Your task to perform on an android device: What is the news today? Image 0: 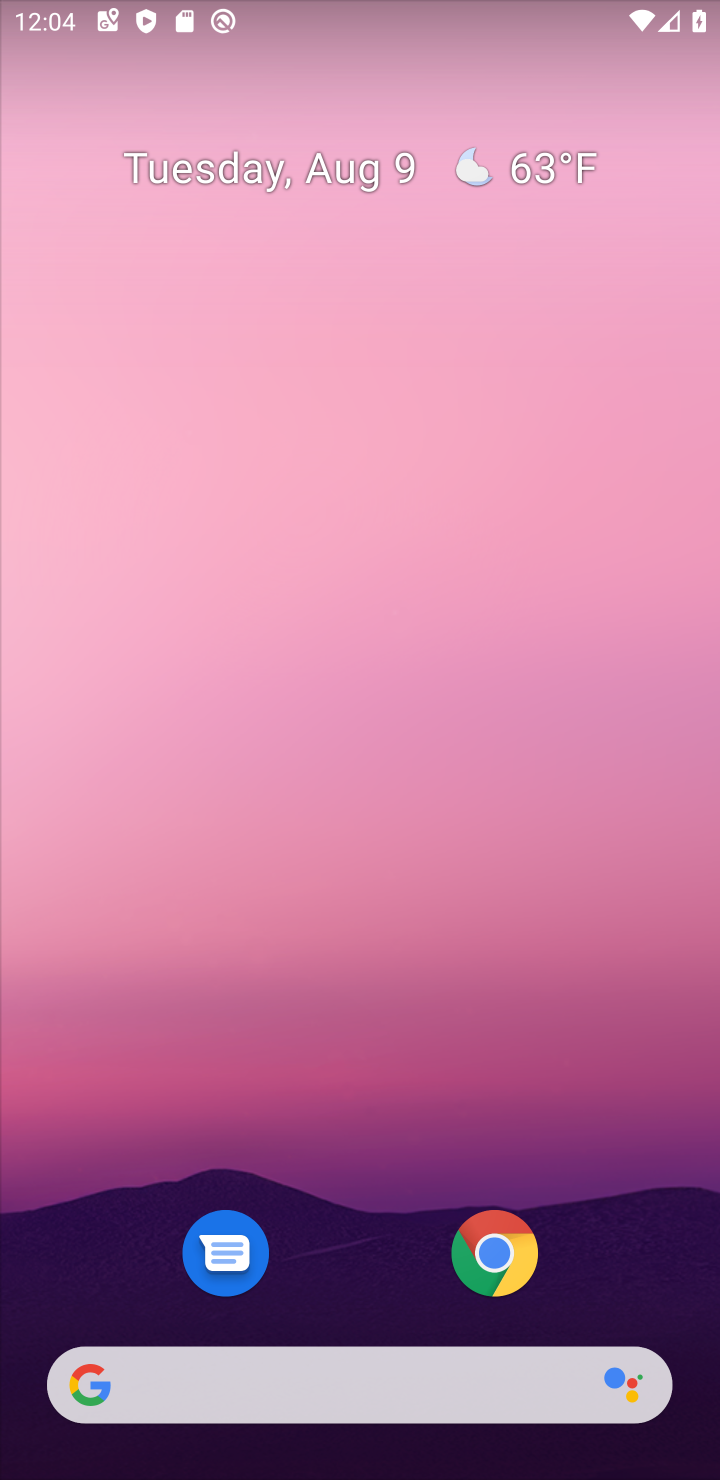
Step 0: drag from (629, 1246) to (240, 65)
Your task to perform on an android device: What is the news today? Image 1: 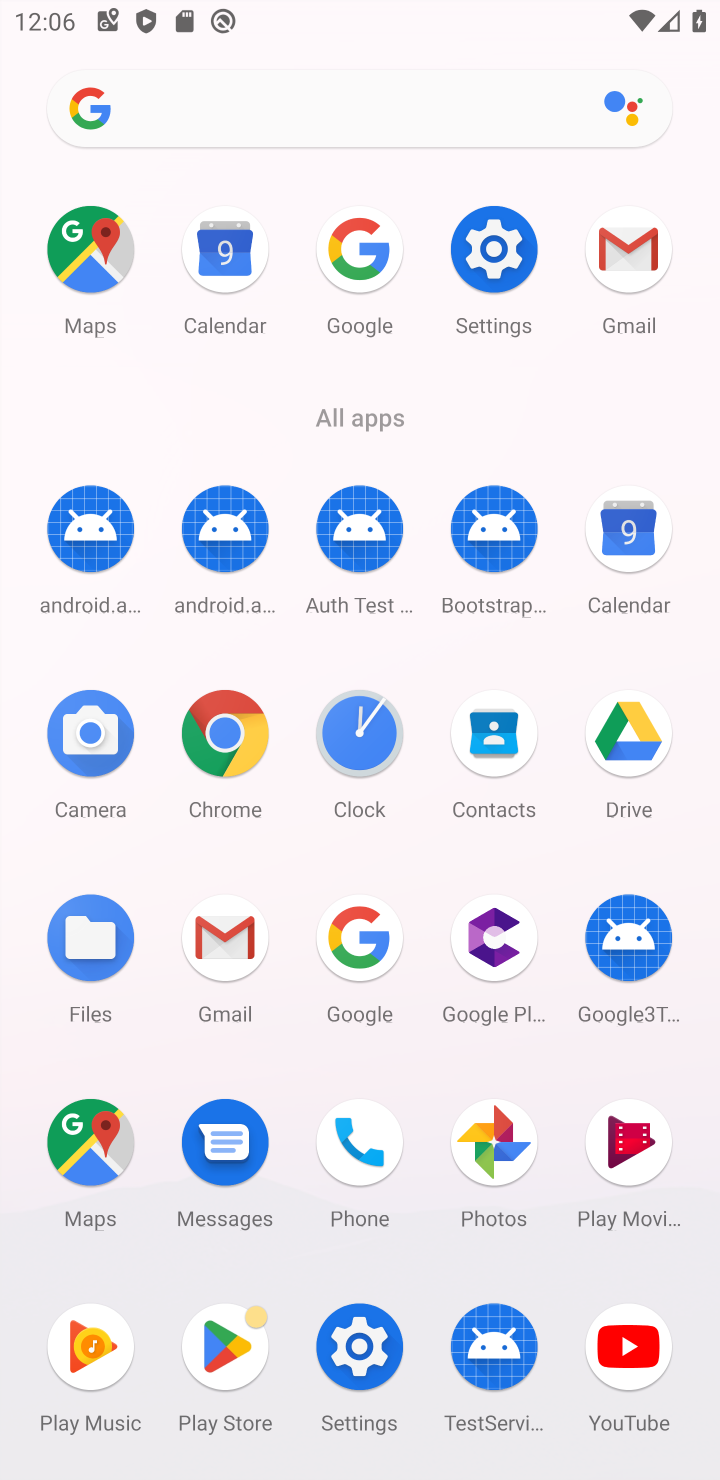
Step 1: click (371, 942)
Your task to perform on an android device: What is the news today? Image 2: 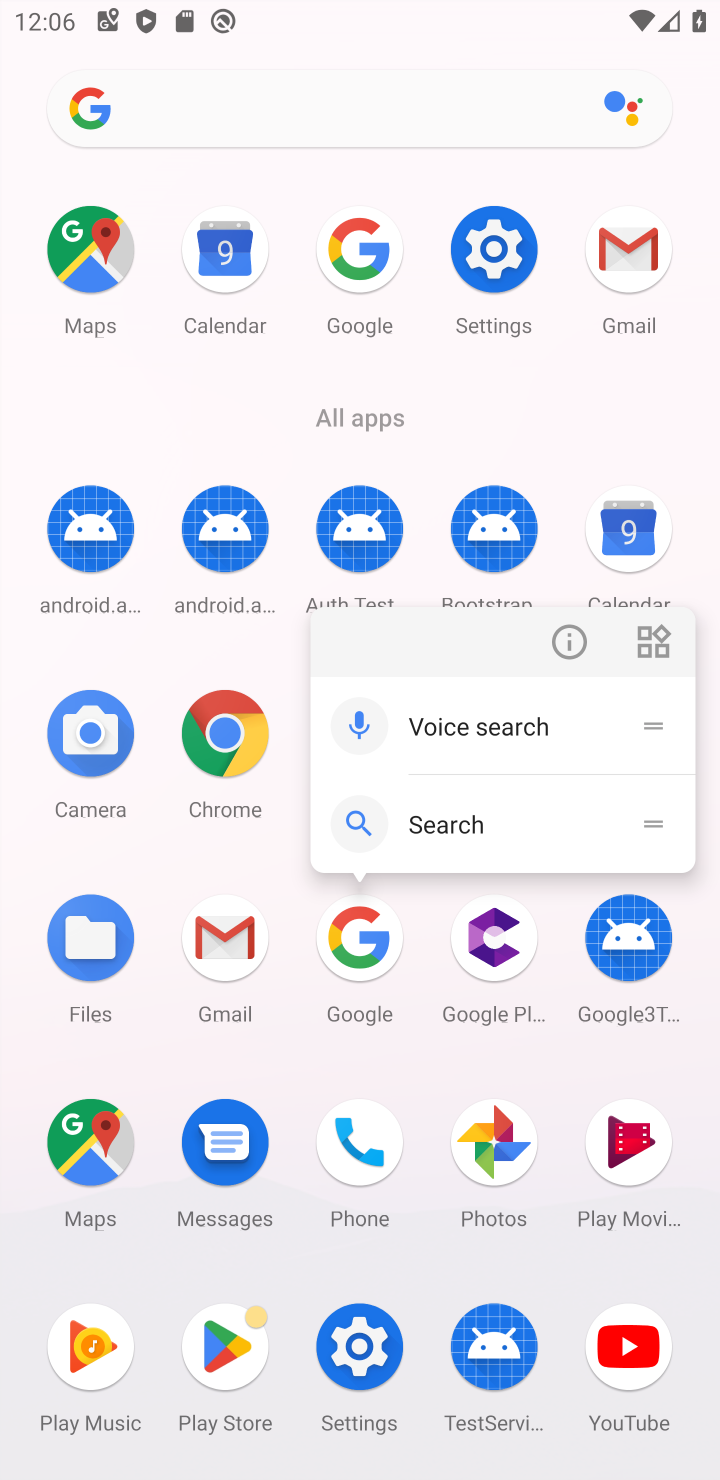
Step 2: click (371, 942)
Your task to perform on an android device: What is the news today? Image 3: 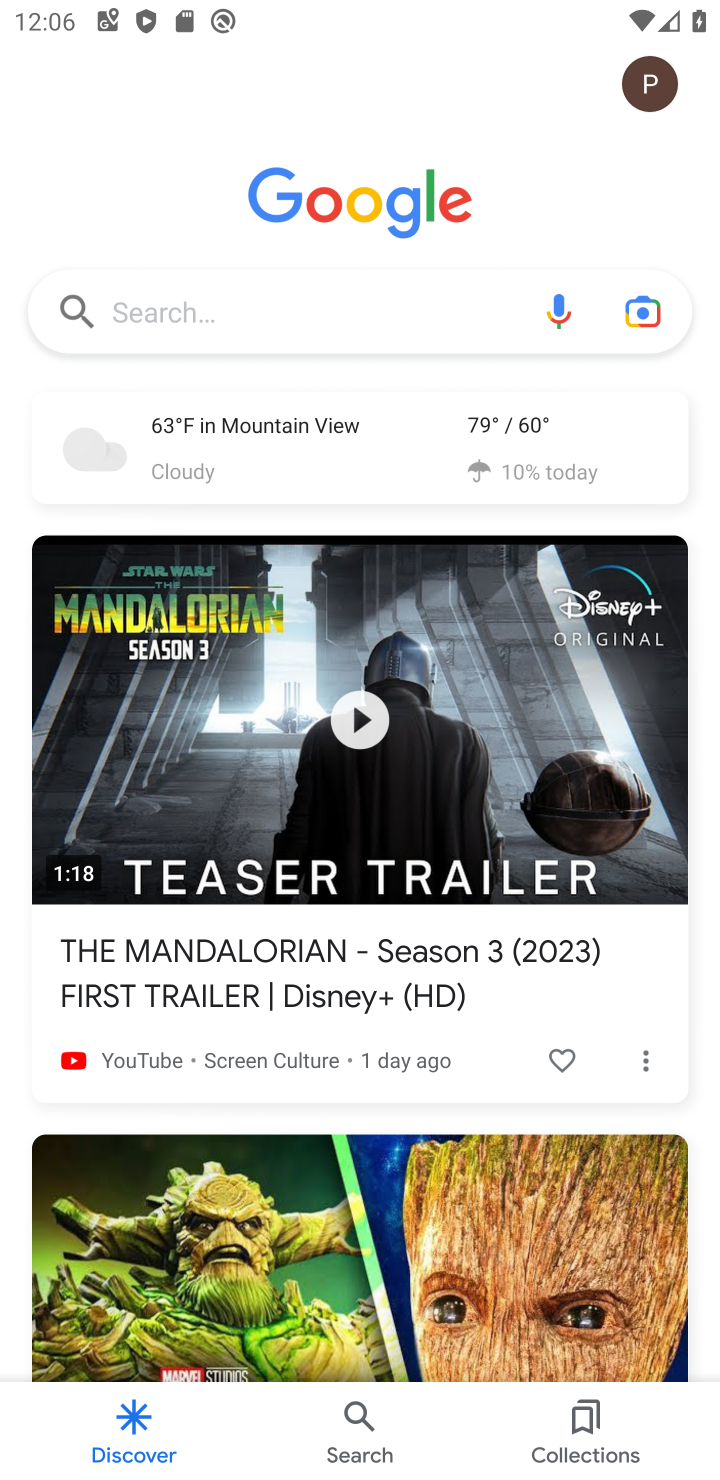
Step 3: click (267, 298)
Your task to perform on an android device: What is the news today? Image 4: 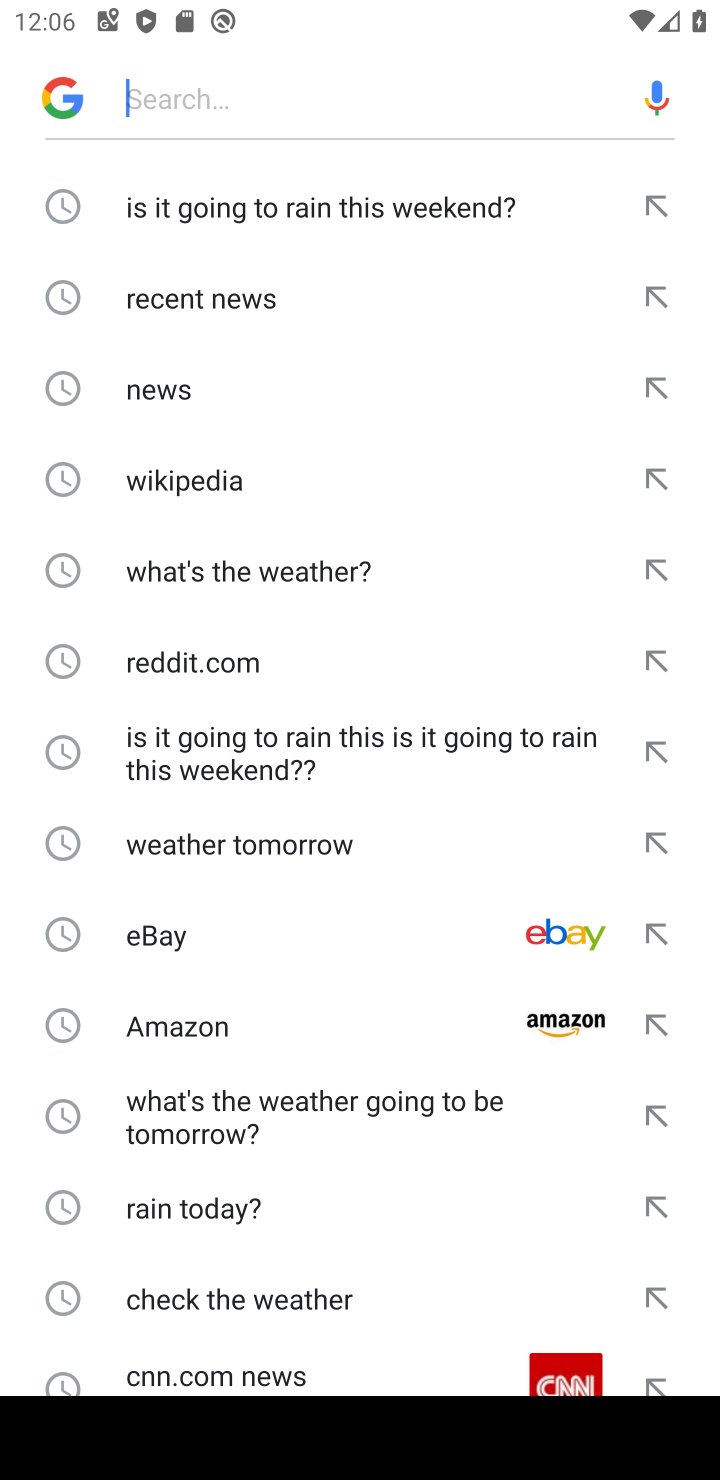
Step 4: type "What is the news today?"
Your task to perform on an android device: What is the news today? Image 5: 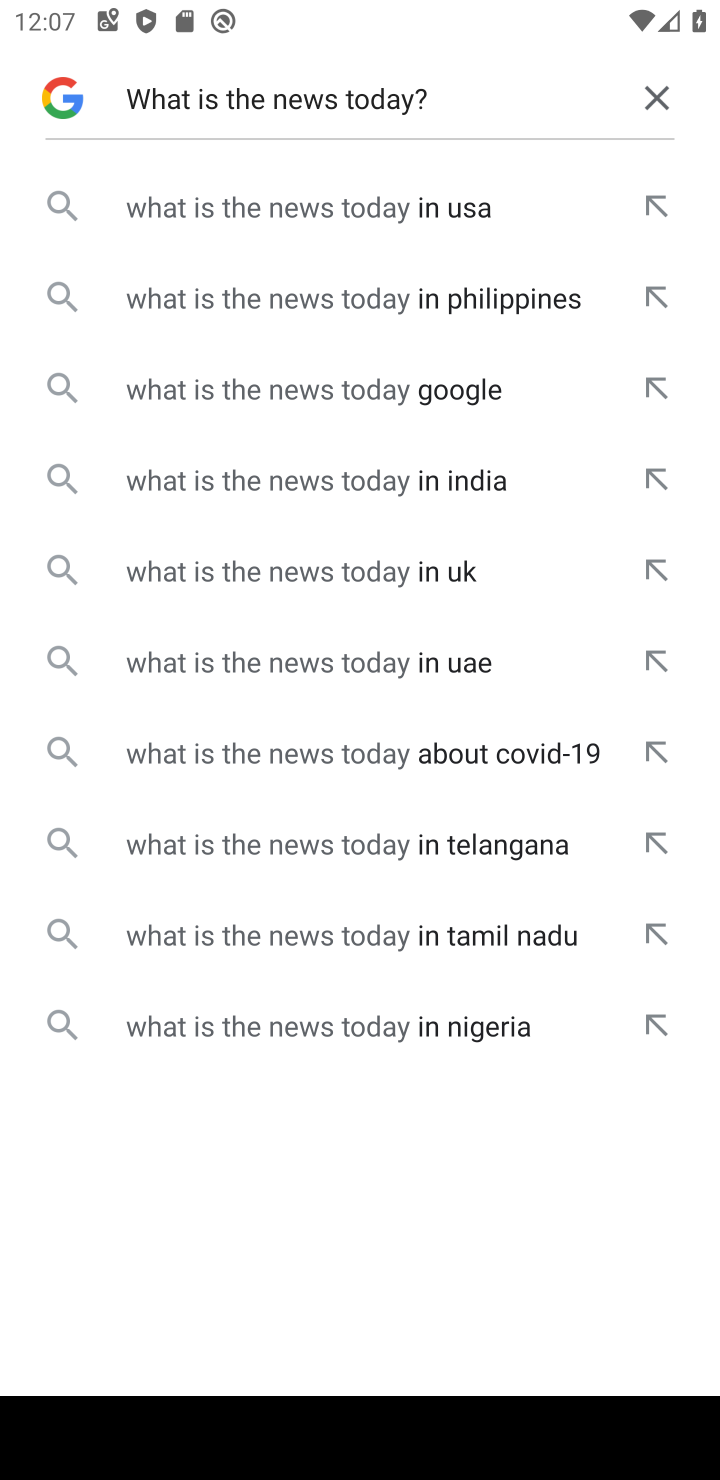
Step 5: click (353, 395)
Your task to perform on an android device: What is the news today? Image 6: 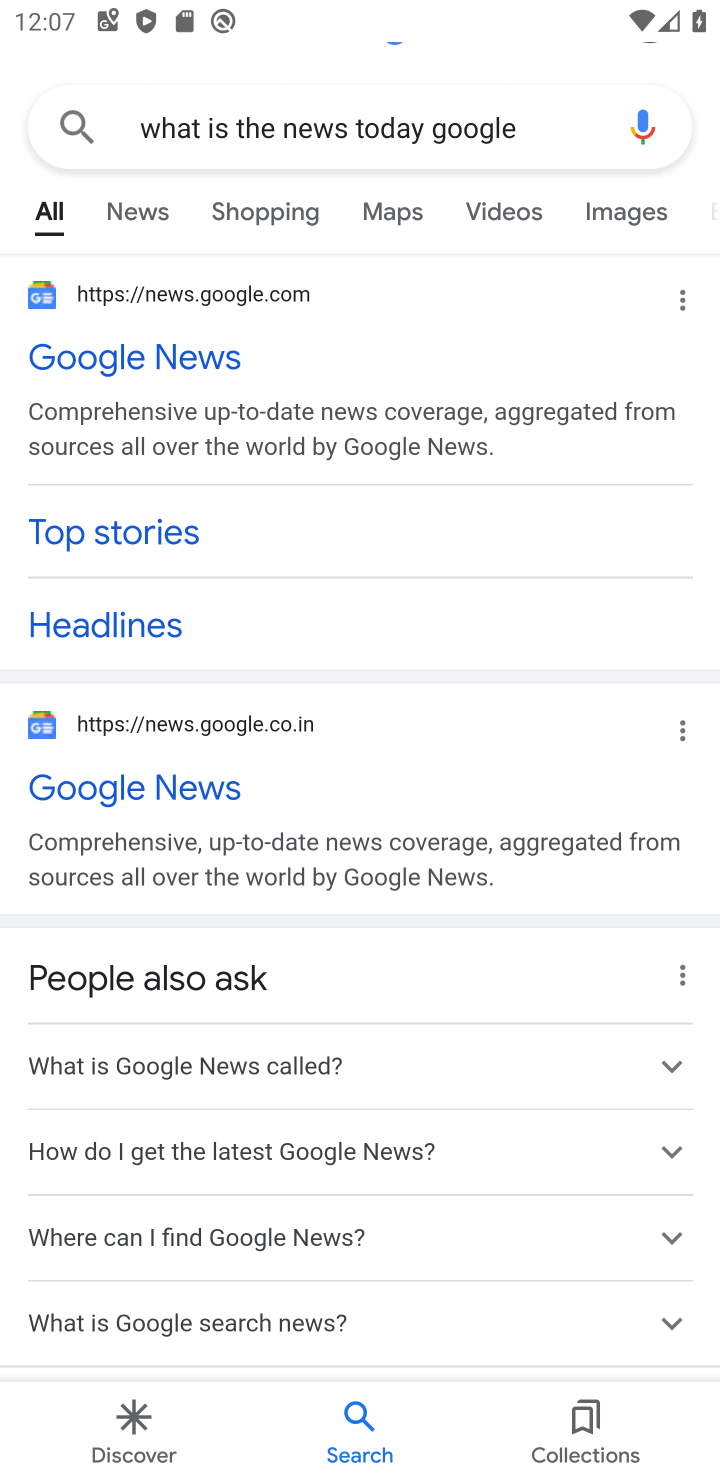
Step 6: task complete